Your task to perform on an android device: Go to location settings Image 0: 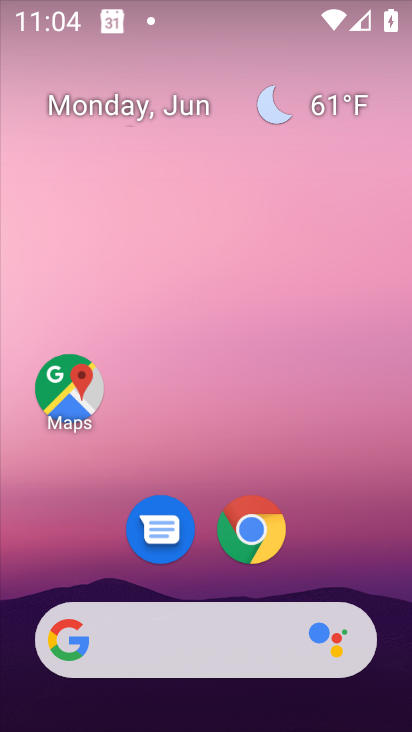
Step 0: drag from (98, 601) to (199, 143)
Your task to perform on an android device: Go to location settings Image 1: 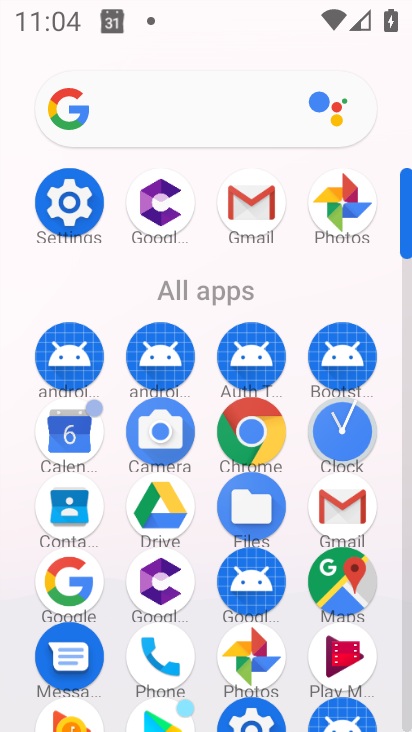
Step 1: drag from (186, 604) to (243, 364)
Your task to perform on an android device: Go to location settings Image 2: 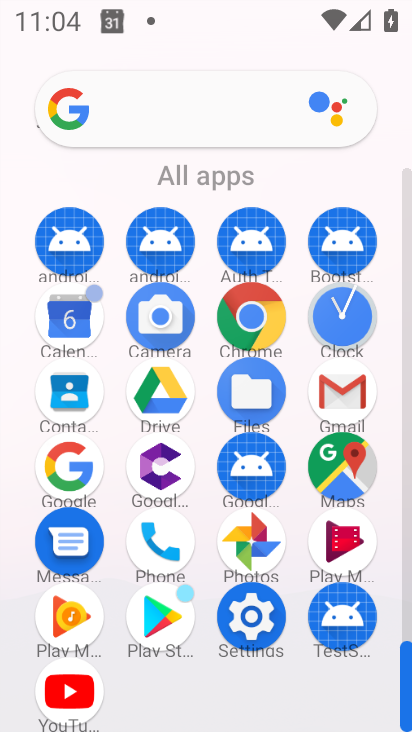
Step 2: click (251, 615)
Your task to perform on an android device: Go to location settings Image 3: 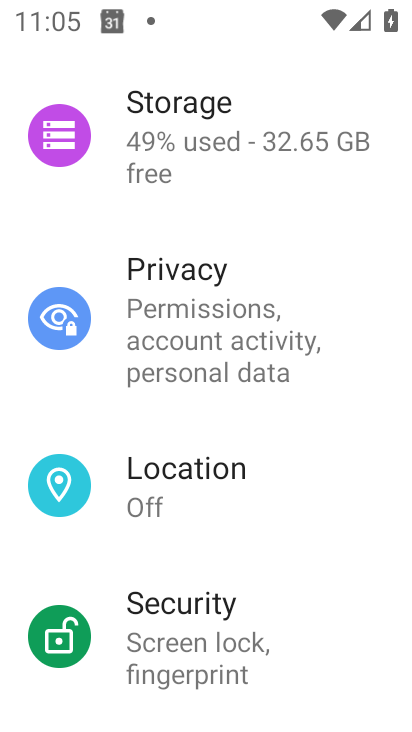
Step 3: click (228, 484)
Your task to perform on an android device: Go to location settings Image 4: 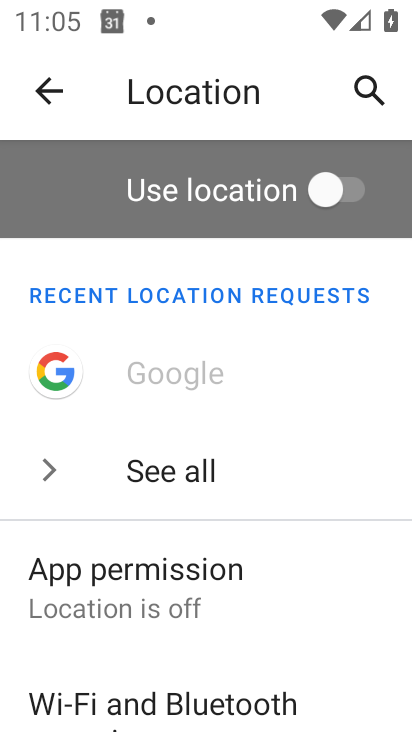
Step 4: task complete